Your task to perform on an android device: read, delete, or share a saved page in the chrome app Image 0: 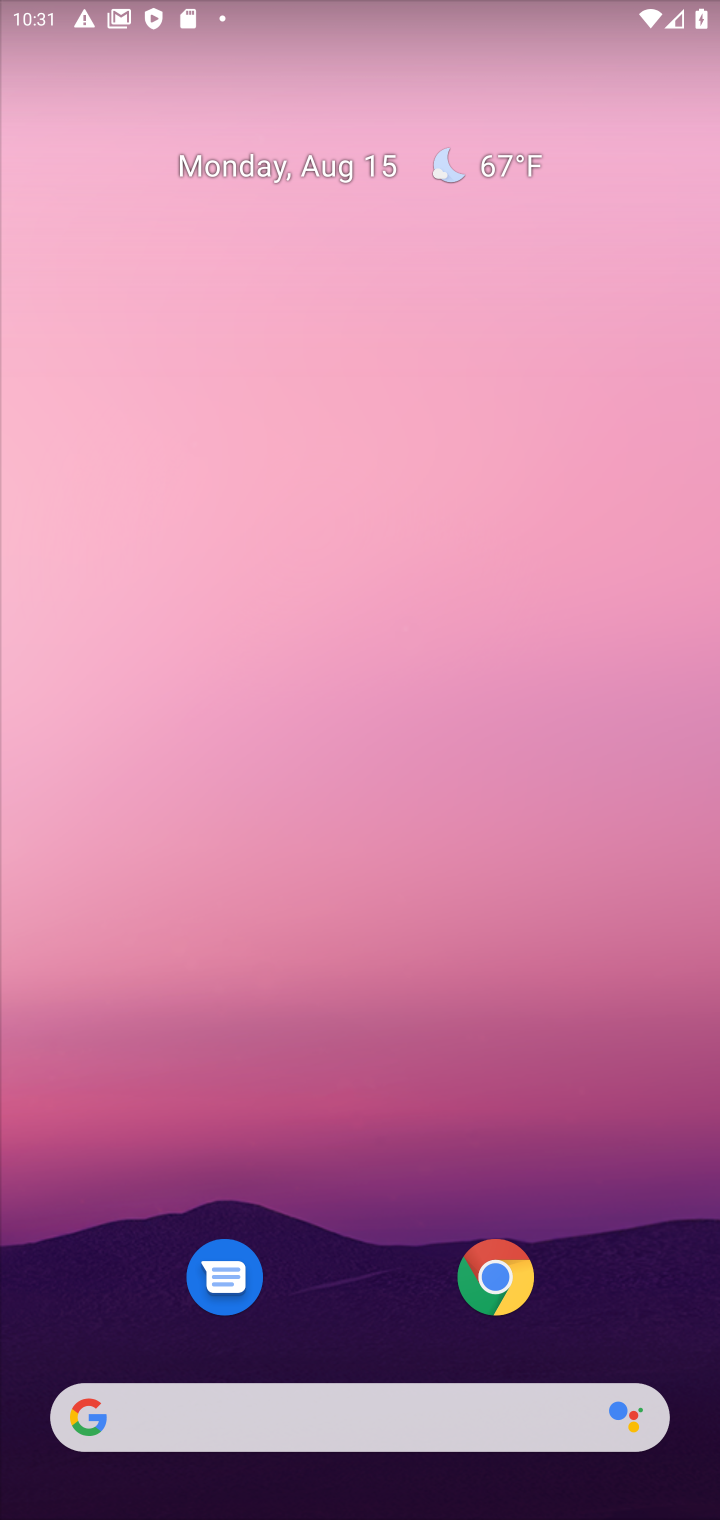
Step 0: click (531, 1283)
Your task to perform on an android device: read, delete, or share a saved page in the chrome app Image 1: 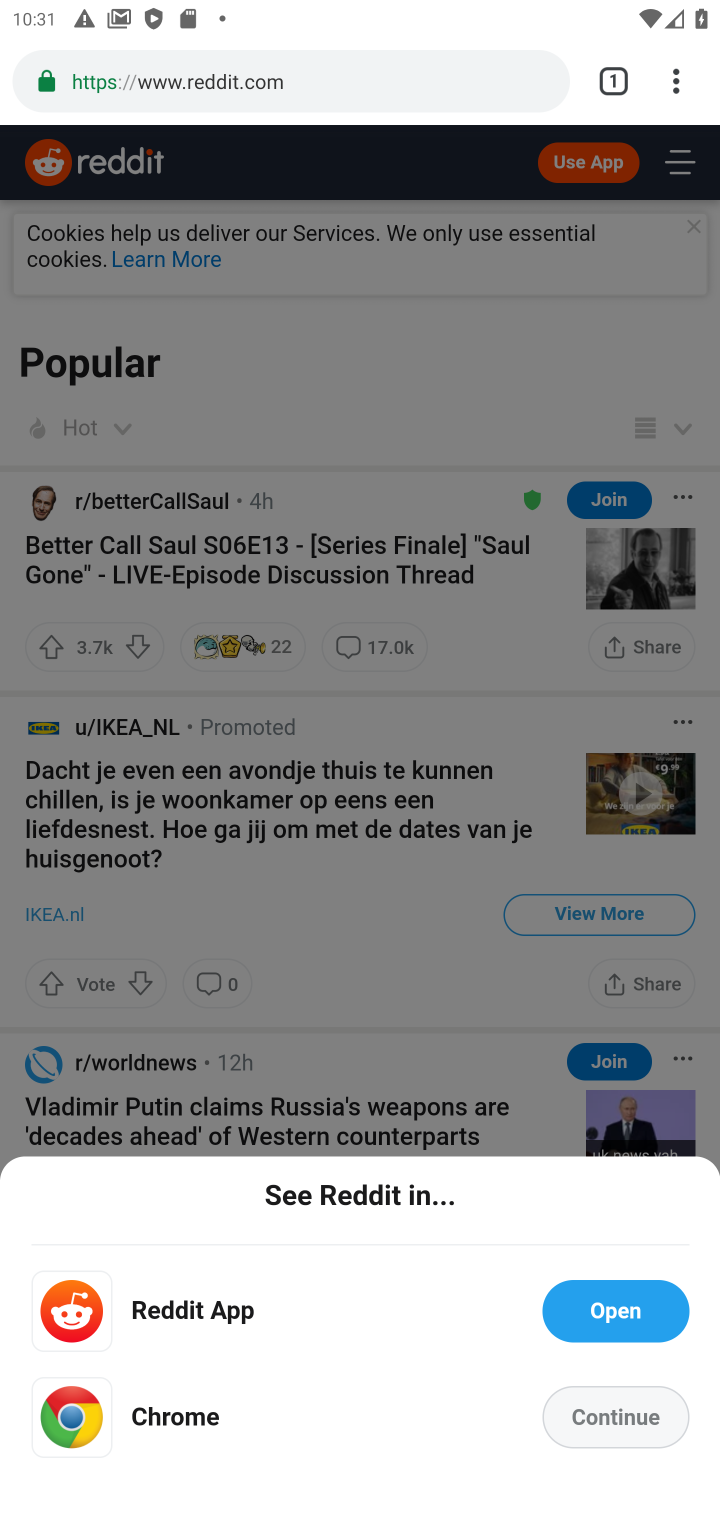
Step 1: drag from (666, 73) to (437, 616)
Your task to perform on an android device: read, delete, or share a saved page in the chrome app Image 2: 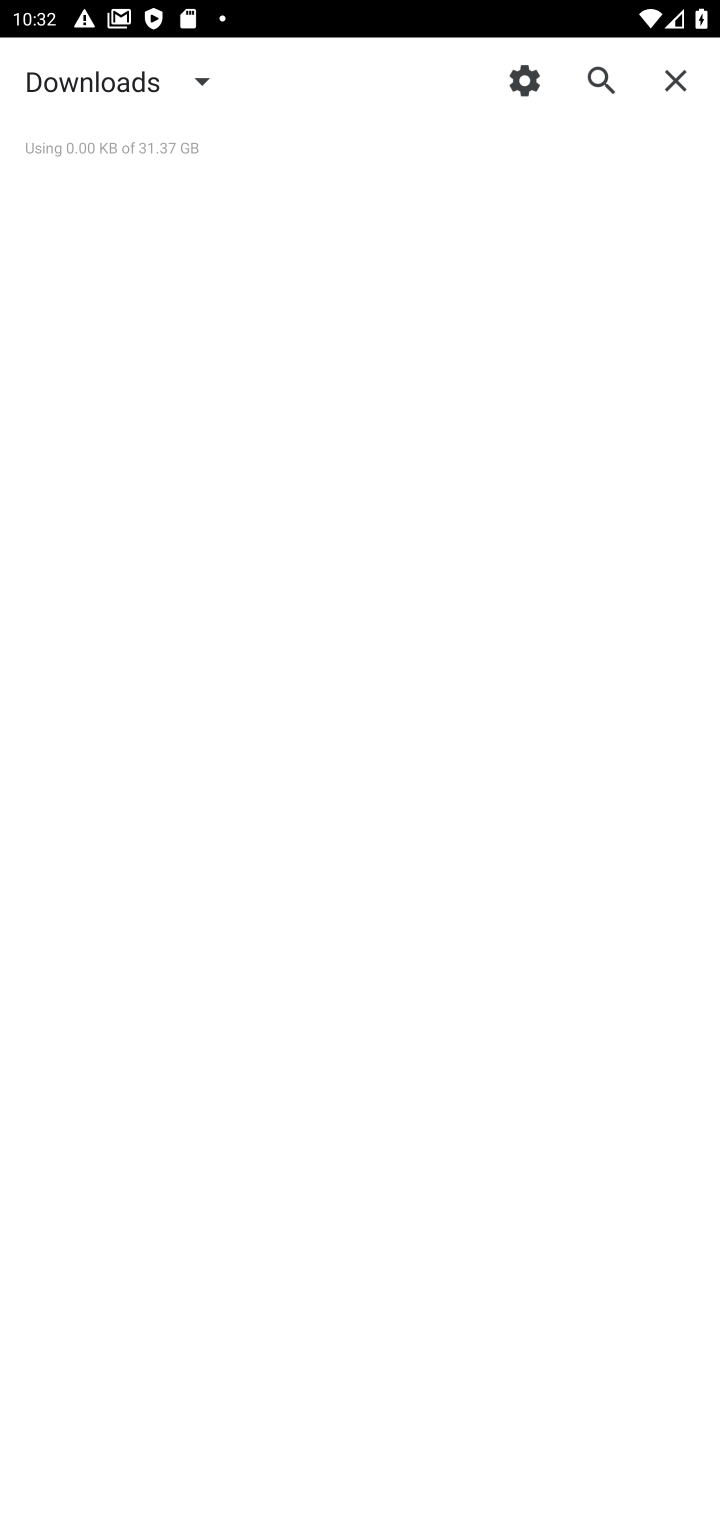
Step 2: click (199, 80)
Your task to perform on an android device: read, delete, or share a saved page in the chrome app Image 3: 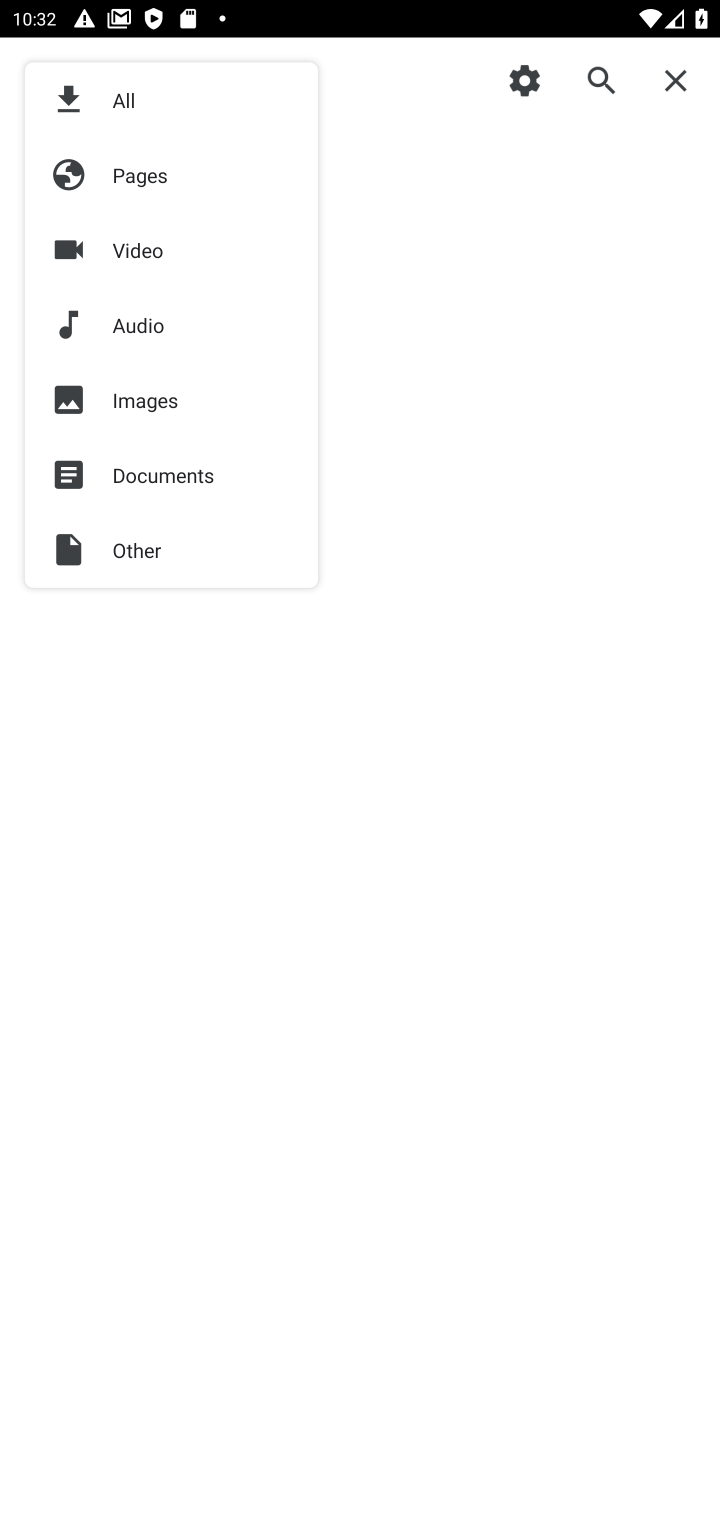
Step 3: click (132, 172)
Your task to perform on an android device: read, delete, or share a saved page in the chrome app Image 4: 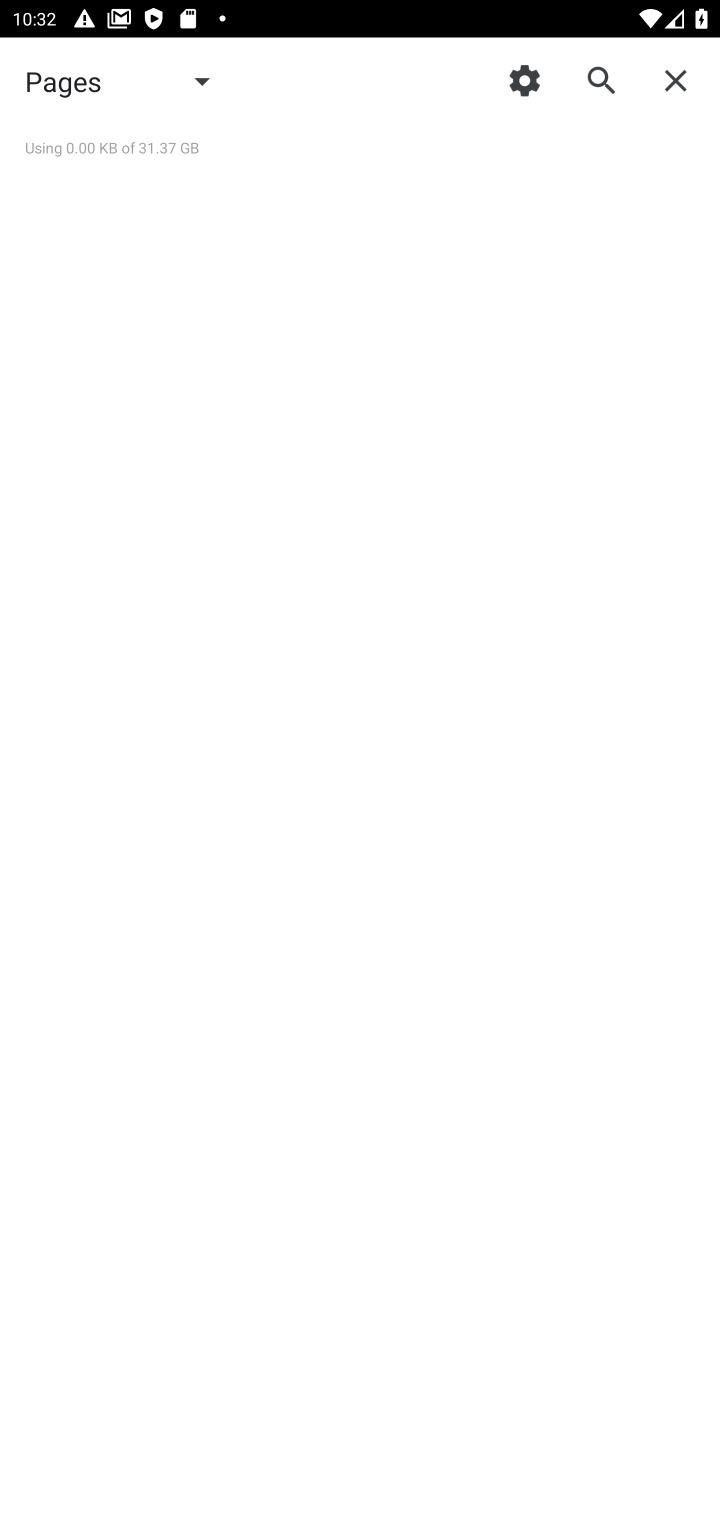
Step 4: task complete